Your task to perform on an android device: turn off sleep mode Image 0: 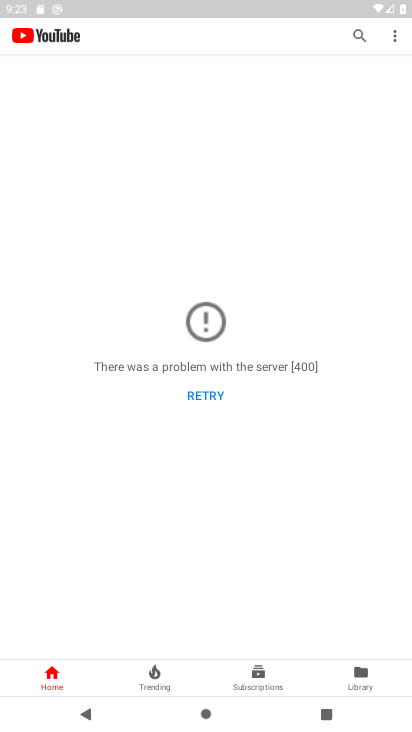
Step 0: task complete